Your task to perform on an android device: What is the recent news? Image 0: 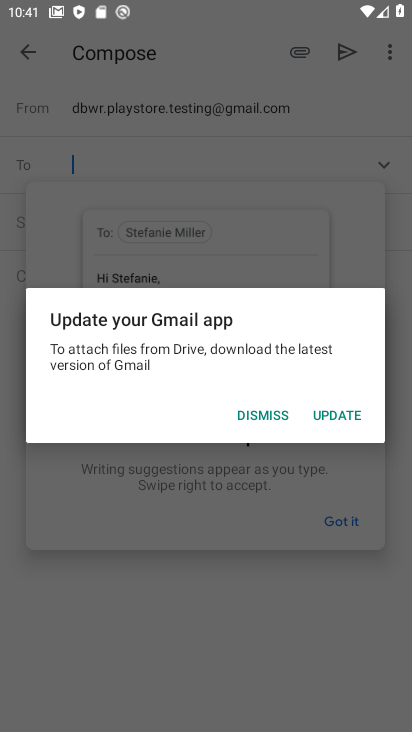
Step 0: press home button
Your task to perform on an android device: What is the recent news? Image 1: 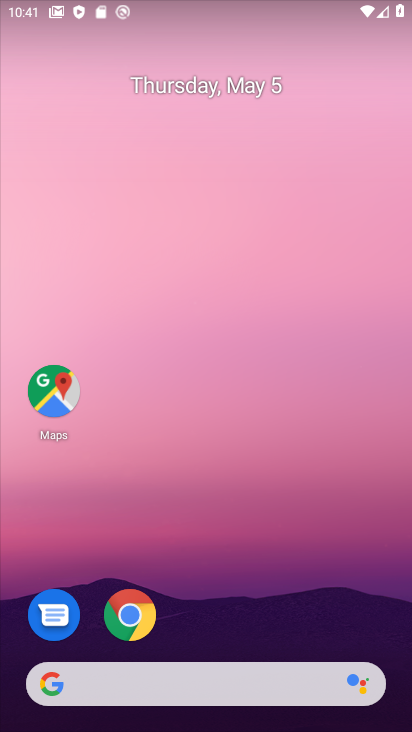
Step 1: task complete